Your task to perform on an android device: turn on wifi Image 0: 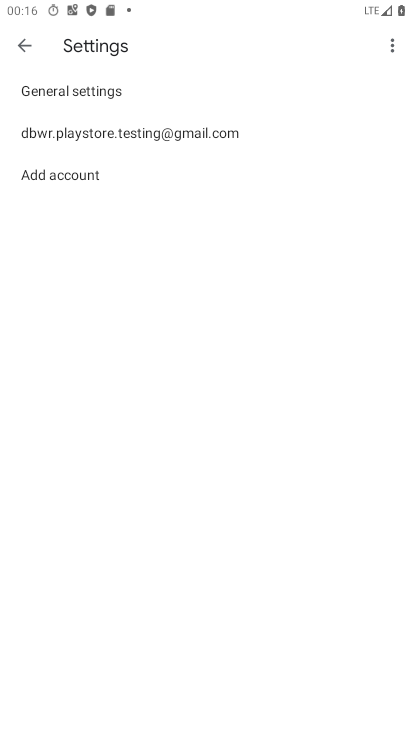
Step 0: press home button
Your task to perform on an android device: turn on wifi Image 1: 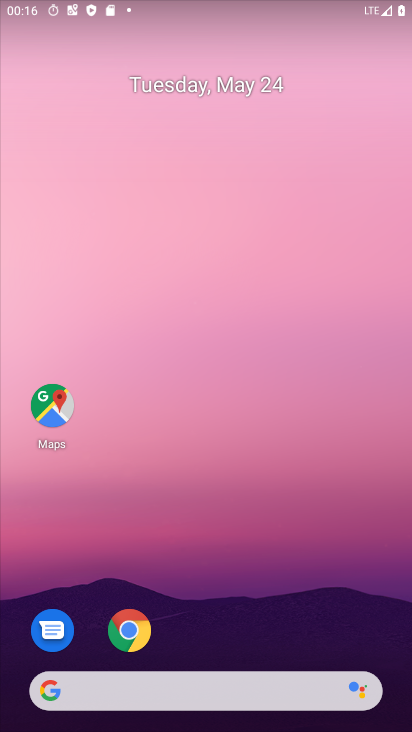
Step 1: drag from (231, 624) to (174, 12)
Your task to perform on an android device: turn on wifi Image 2: 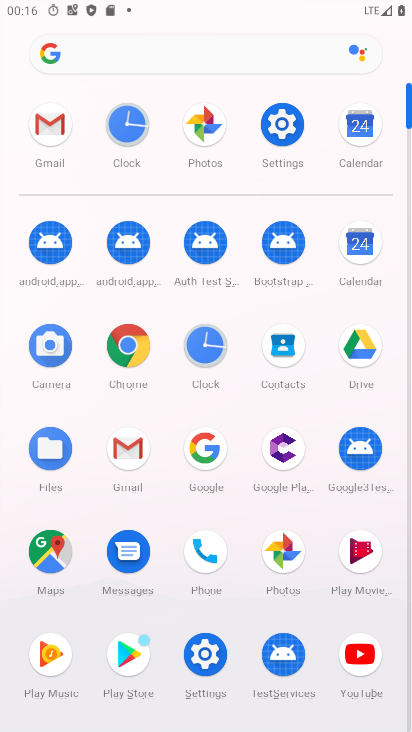
Step 2: click (285, 126)
Your task to perform on an android device: turn on wifi Image 3: 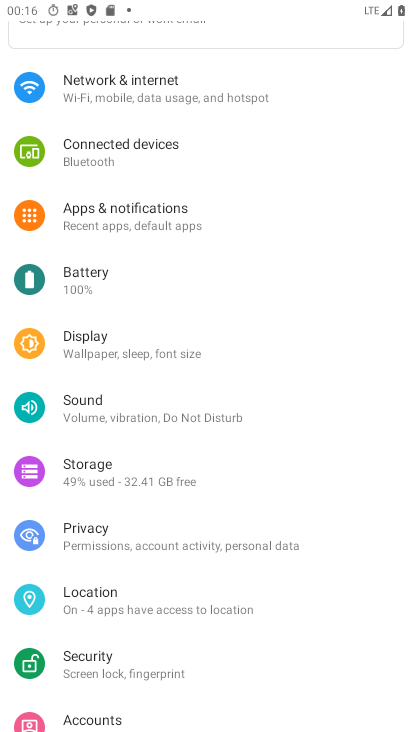
Step 3: click (139, 91)
Your task to perform on an android device: turn on wifi Image 4: 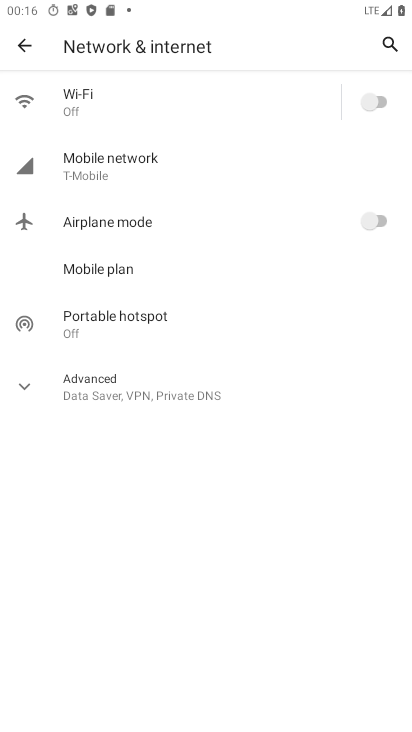
Step 4: click (369, 103)
Your task to perform on an android device: turn on wifi Image 5: 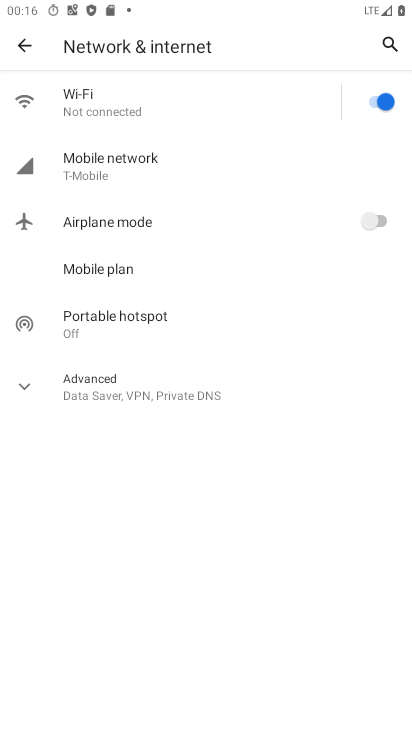
Step 5: task complete